Your task to perform on an android device: create a new album in the google photos Image 0: 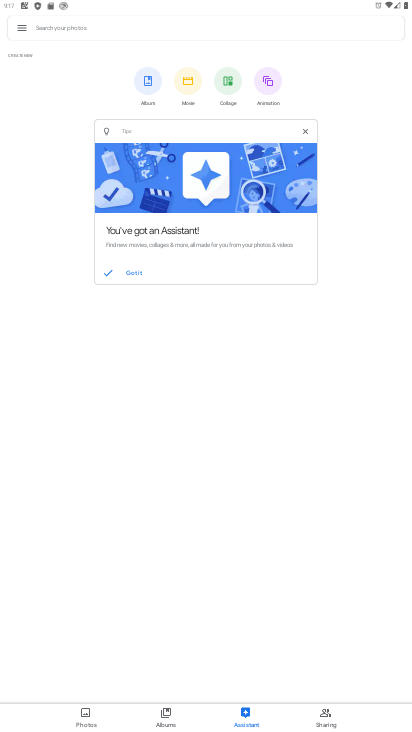
Step 0: press home button
Your task to perform on an android device: create a new album in the google photos Image 1: 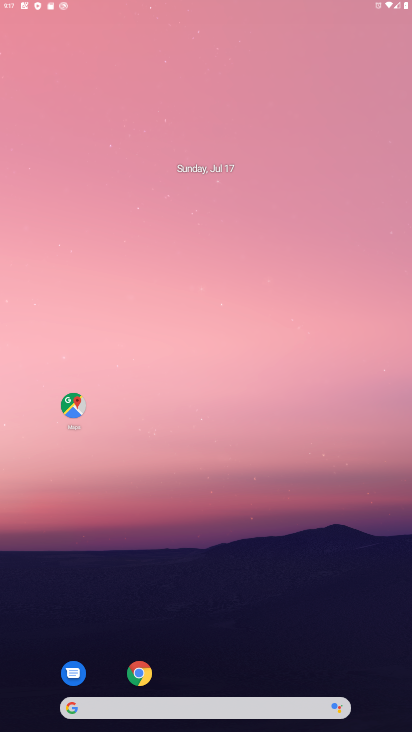
Step 1: drag from (239, 610) to (188, 3)
Your task to perform on an android device: create a new album in the google photos Image 2: 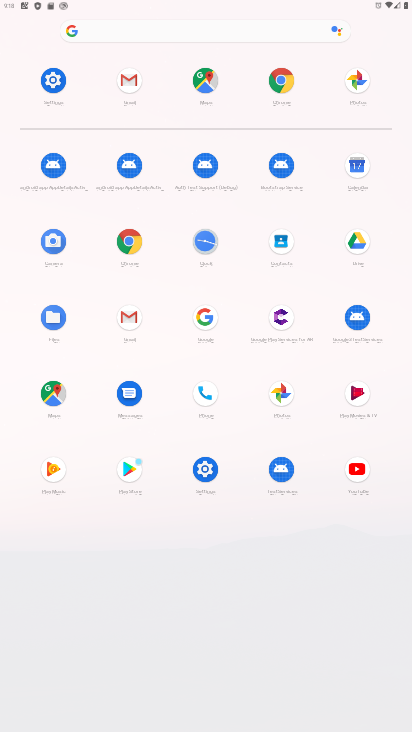
Step 2: click (277, 390)
Your task to perform on an android device: create a new album in the google photos Image 3: 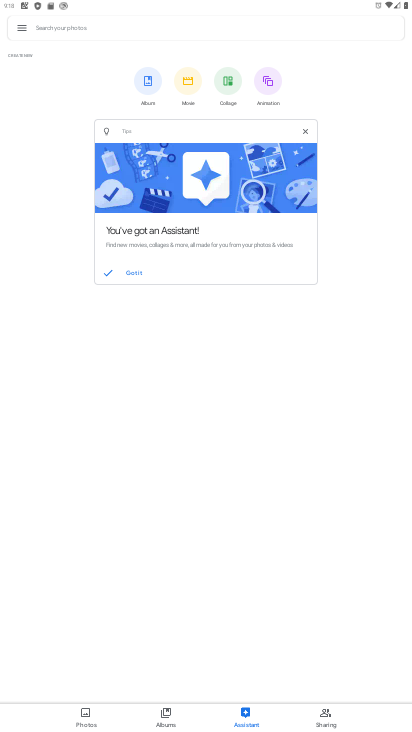
Step 3: click (247, 81)
Your task to perform on an android device: create a new album in the google photos Image 4: 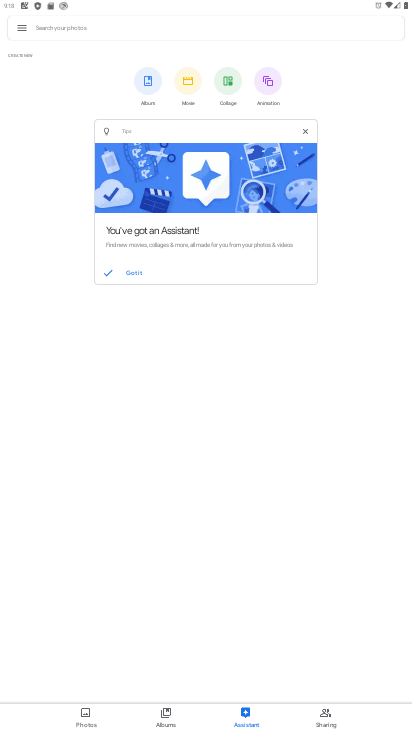
Step 4: click (182, 85)
Your task to perform on an android device: create a new album in the google photos Image 5: 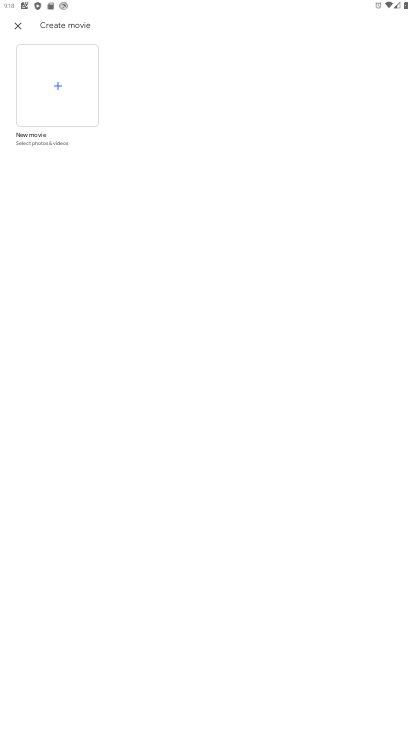
Step 5: click (139, 78)
Your task to perform on an android device: create a new album in the google photos Image 6: 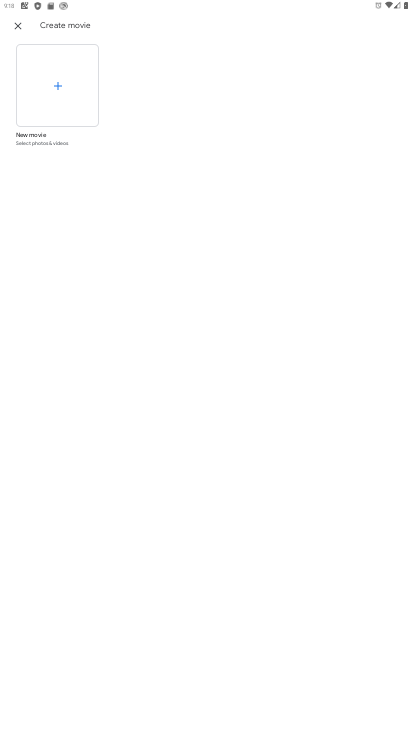
Step 6: click (30, 24)
Your task to perform on an android device: create a new album in the google photos Image 7: 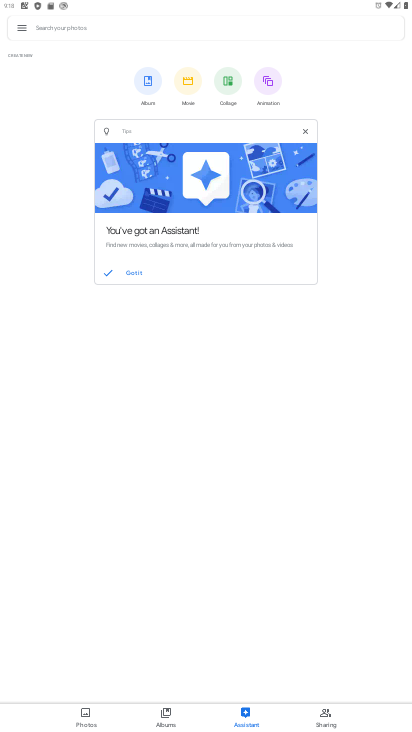
Step 7: click (146, 69)
Your task to perform on an android device: create a new album in the google photos Image 8: 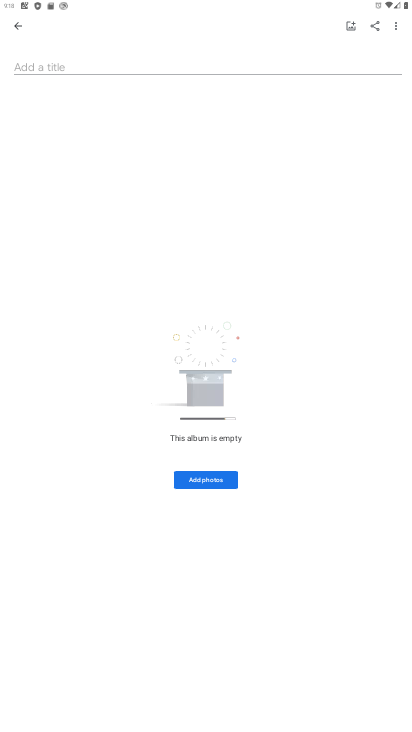
Step 8: click (60, 67)
Your task to perform on an android device: create a new album in the google photos Image 9: 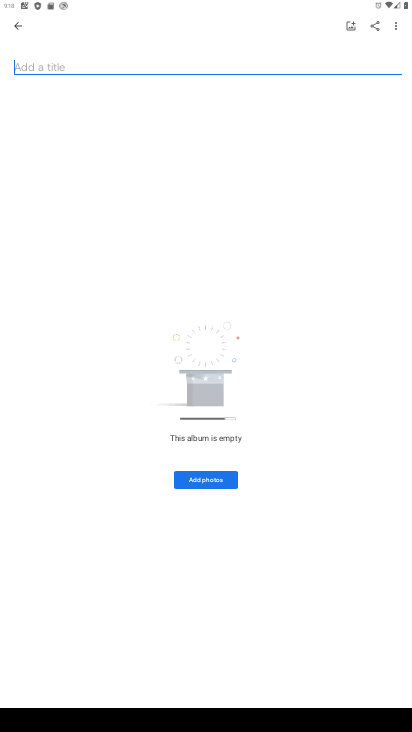
Step 9: type "golp"
Your task to perform on an android device: create a new album in the google photos Image 10: 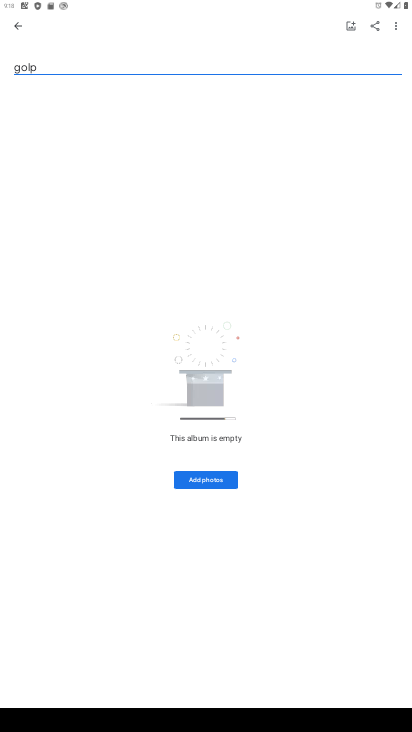
Step 10: click (219, 480)
Your task to perform on an android device: create a new album in the google photos Image 11: 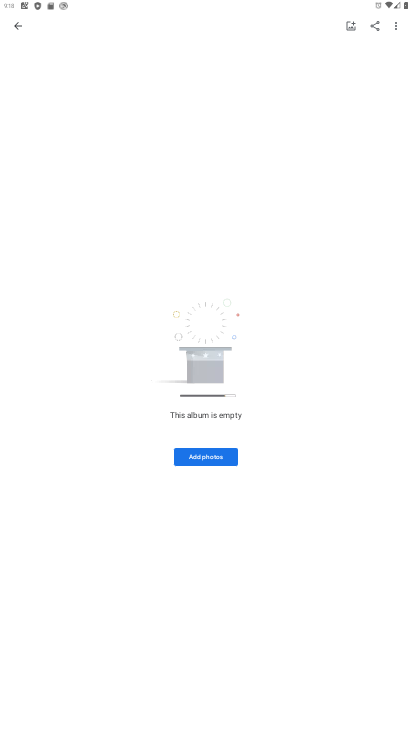
Step 11: click (210, 473)
Your task to perform on an android device: create a new album in the google photos Image 12: 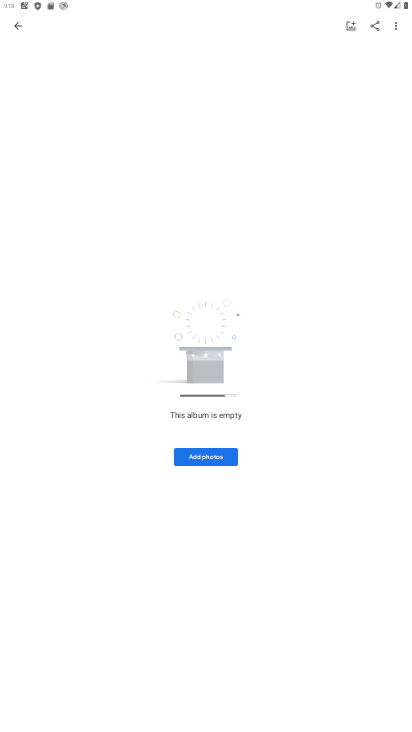
Step 12: click (209, 451)
Your task to perform on an android device: create a new album in the google photos Image 13: 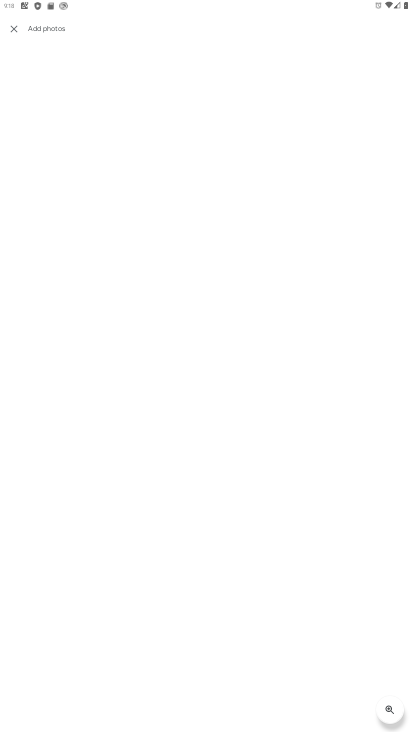
Step 13: click (211, 456)
Your task to perform on an android device: create a new album in the google photos Image 14: 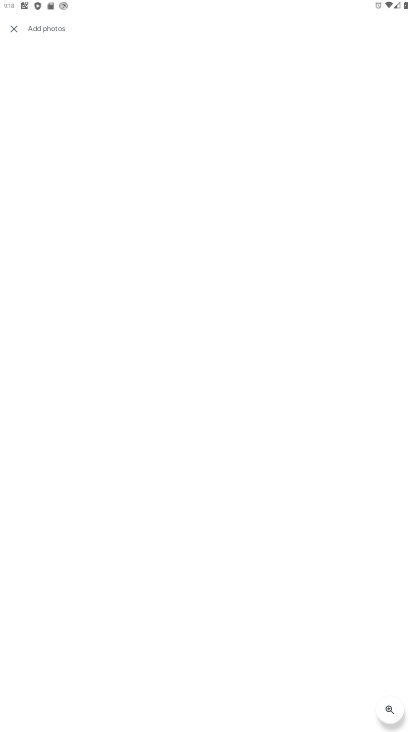
Step 14: click (12, 29)
Your task to perform on an android device: create a new album in the google photos Image 15: 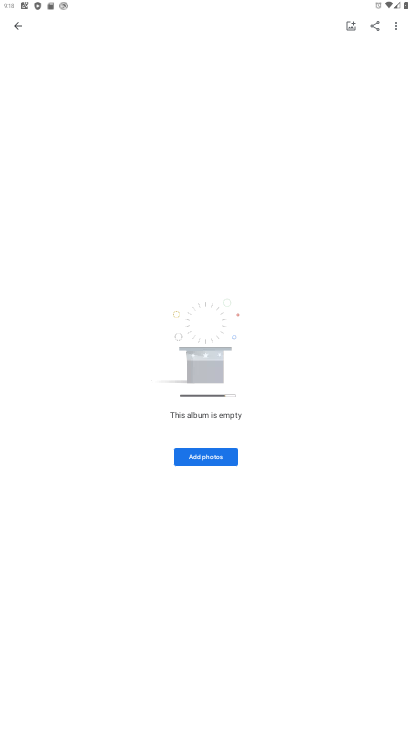
Step 15: task complete